Your task to perform on an android device: toggle sleep mode Image 0: 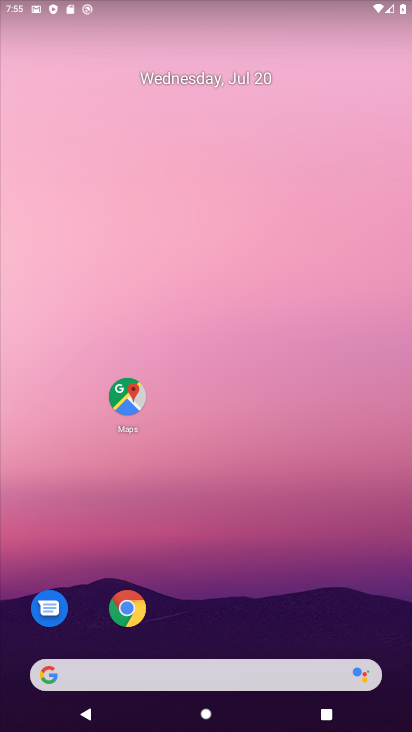
Step 0: click (336, 460)
Your task to perform on an android device: toggle sleep mode Image 1: 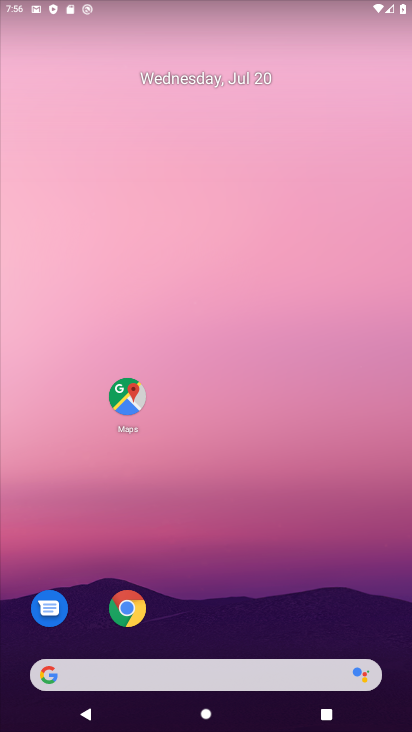
Step 1: drag from (64, 642) to (259, 196)
Your task to perform on an android device: toggle sleep mode Image 2: 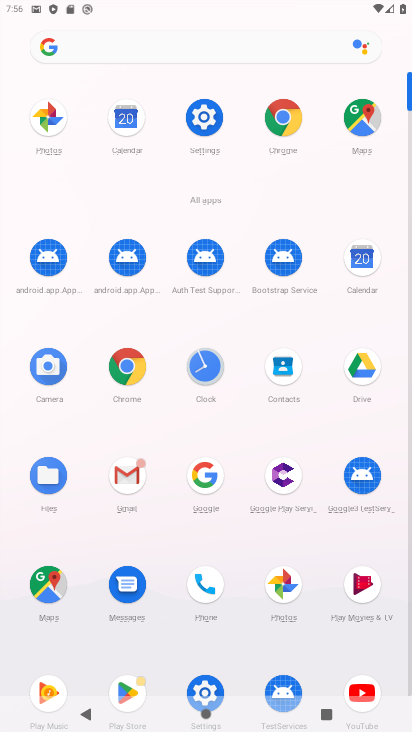
Step 2: click (216, 120)
Your task to perform on an android device: toggle sleep mode Image 3: 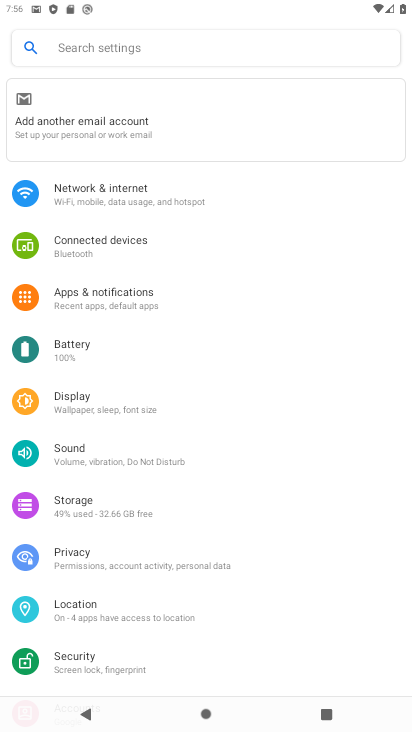
Step 3: task complete